Your task to perform on an android device: Open Youtube and go to the subscriptions tab Image 0: 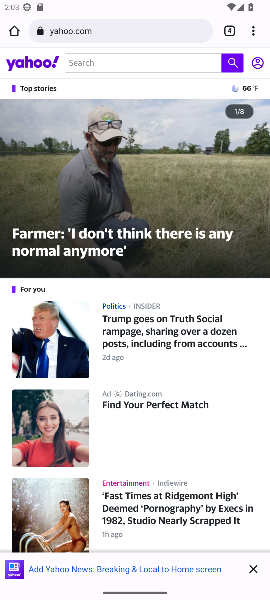
Step 0: press home button
Your task to perform on an android device: Open Youtube and go to the subscriptions tab Image 1: 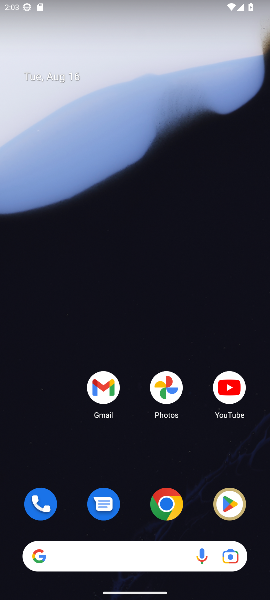
Step 1: click (230, 385)
Your task to perform on an android device: Open Youtube and go to the subscriptions tab Image 2: 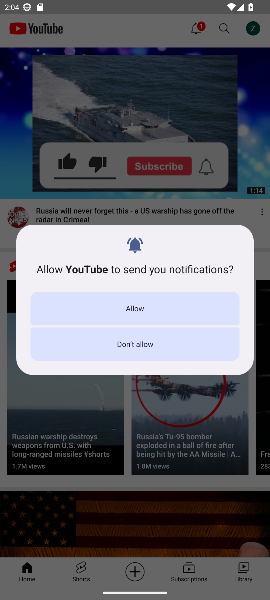
Step 2: click (128, 305)
Your task to perform on an android device: Open Youtube and go to the subscriptions tab Image 3: 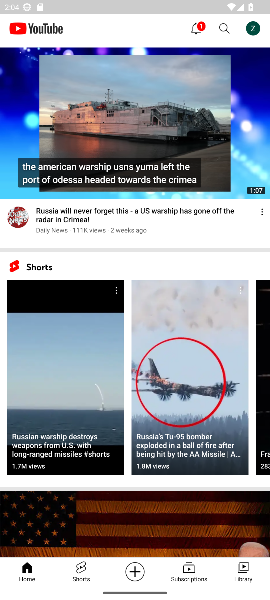
Step 3: click (190, 571)
Your task to perform on an android device: Open Youtube and go to the subscriptions tab Image 4: 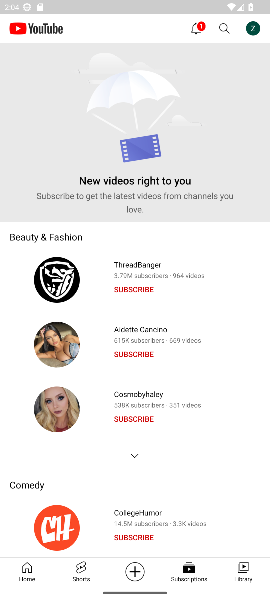
Step 4: task complete